Your task to perform on an android device: Open Google Chrome and open the bookmarks view Image 0: 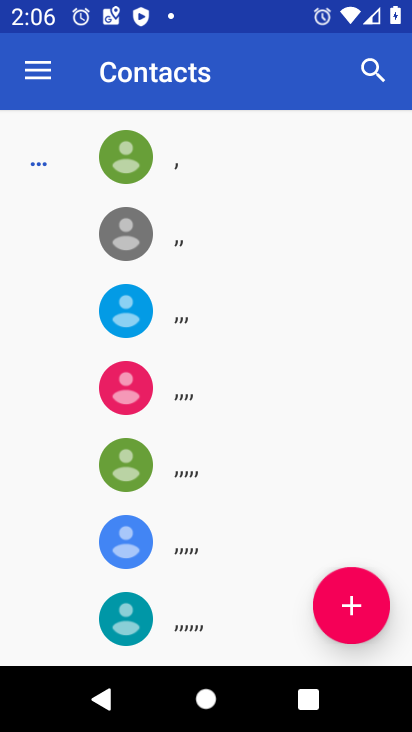
Step 0: press home button
Your task to perform on an android device: Open Google Chrome and open the bookmarks view Image 1: 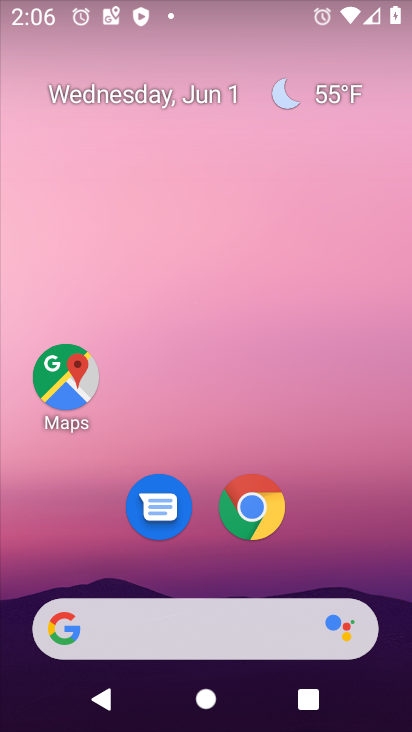
Step 1: click (257, 507)
Your task to perform on an android device: Open Google Chrome and open the bookmarks view Image 2: 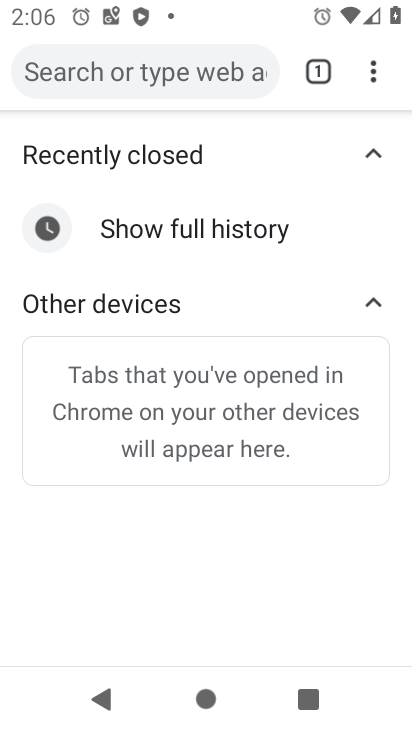
Step 2: click (378, 72)
Your task to perform on an android device: Open Google Chrome and open the bookmarks view Image 3: 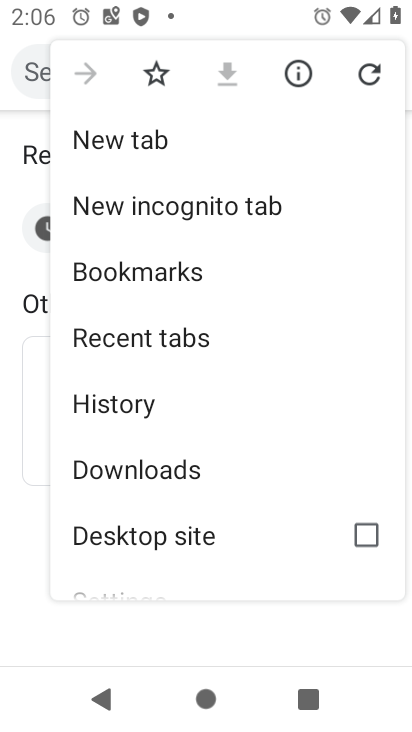
Step 3: click (148, 279)
Your task to perform on an android device: Open Google Chrome and open the bookmarks view Image 4: 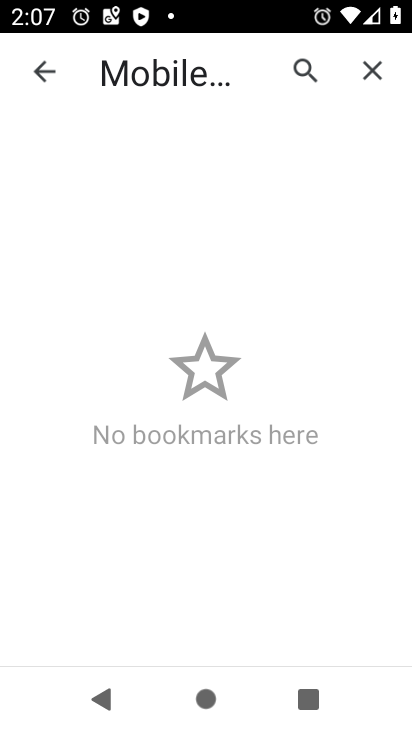
Step 4: task complete